Your task to perform on an android device: set the stopwatch Image 0: 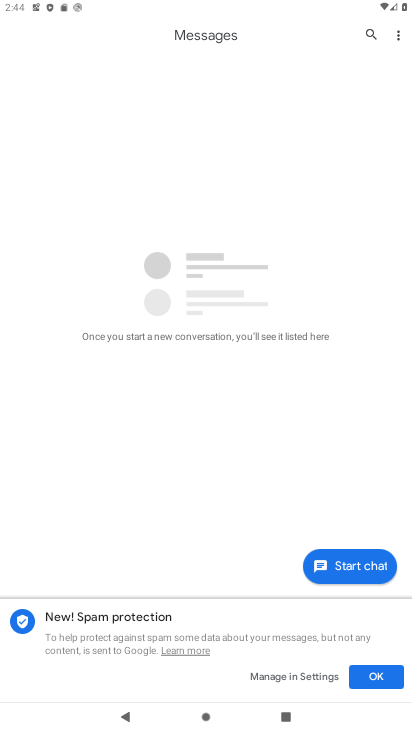
Step 0: press home button
Your task to perform on an android device: set the stopwatch Image 1: 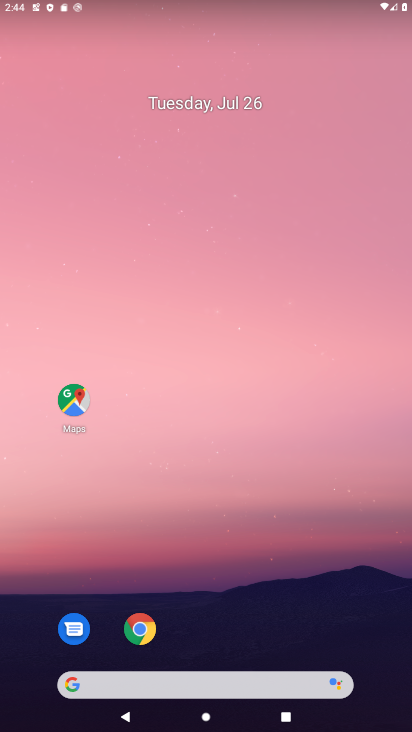
Step 1: drag from (279, 640) to (233, 309)
Your task to perform on an android device: set the stopwatch Image 2: 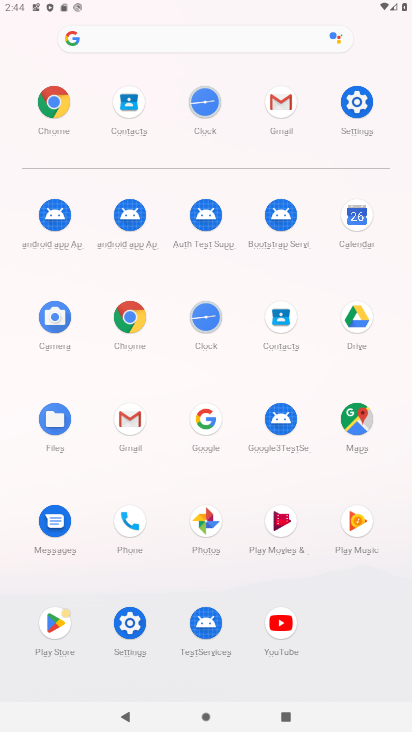
Step 2: click (214, 110)
Your task to perform on an android device: set the stopwatch Image 3: 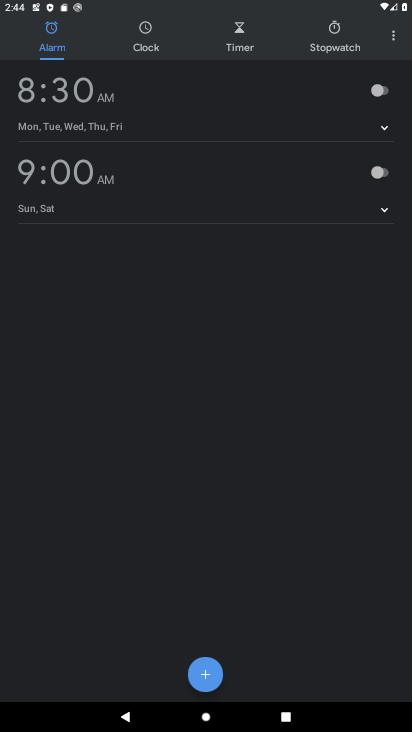
Step 3: click (327, 52)
Your task to perform on an android device: set the stopwatch Image 4: 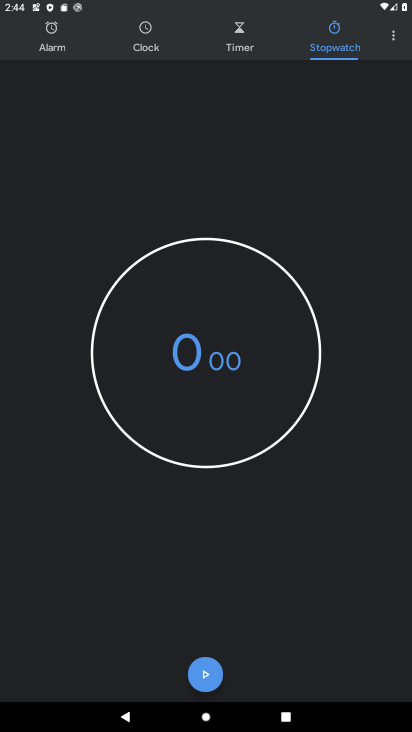
Step 4: task complete